Your task to perform on an android device: Open Google Maps Image 0: 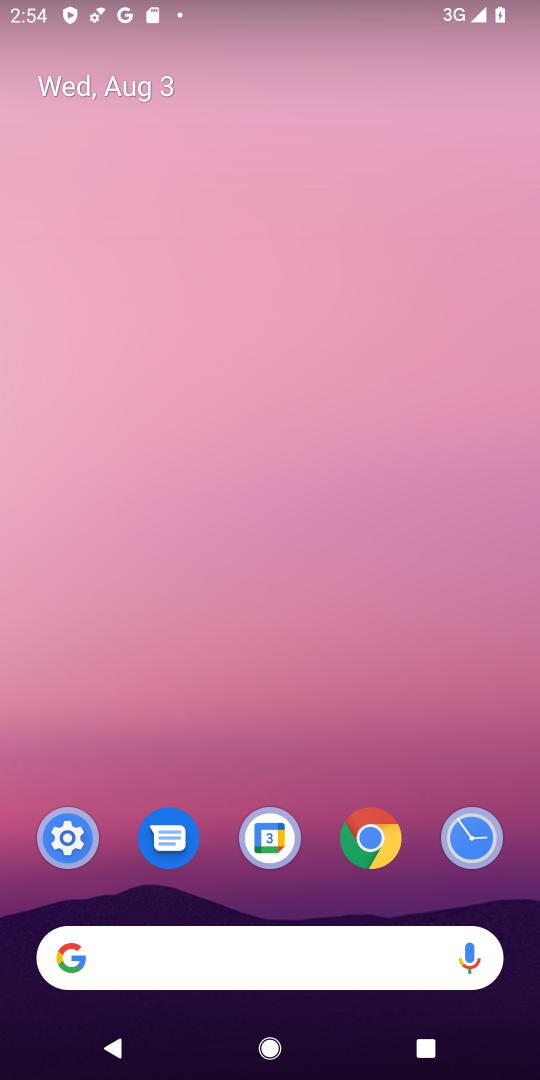
Step 0: drag from (237, 897) to (363, 0)
Your task to perform on an android device: Open Google Maps Image 1: 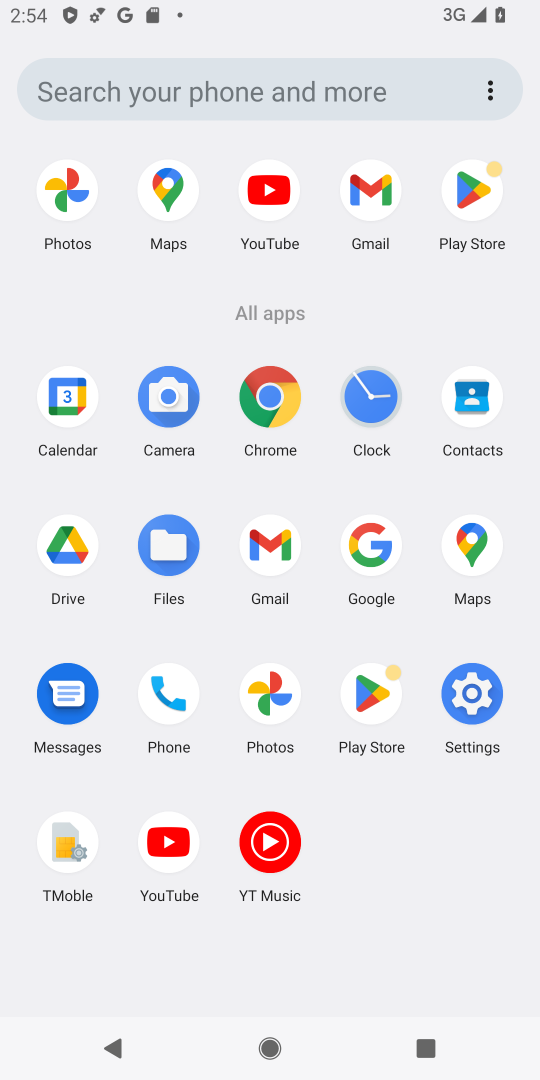
Step 1: click (167, 191)
Your task to perform on an android device: Open Google Maps Image 2: 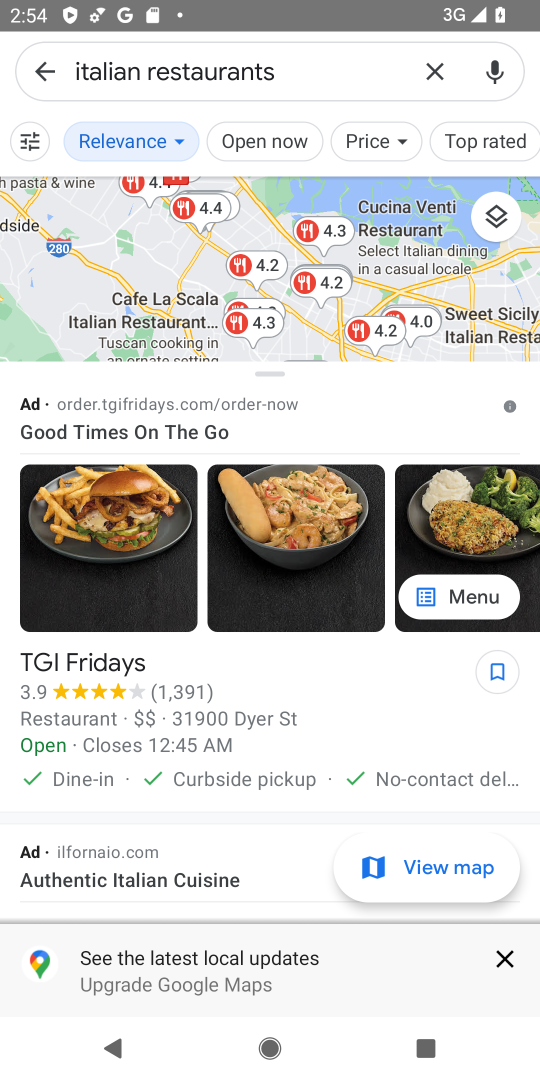
Step 2: task complete